Your task to perform on an android device: open the mobile data screen to see how much data has been used Image 0: 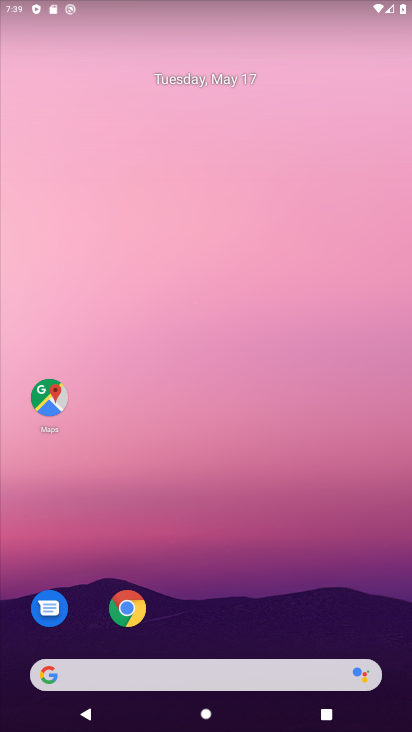
Step 0: drag from (190, 602) to (311, 47)
Your task to perform on an android device: open the mobile data screen to see how much data has been used Image 1: 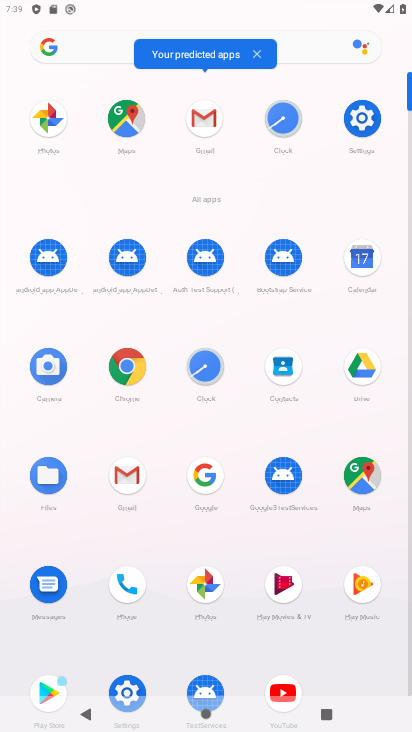
Step 1: click (365, 119)
Your task to perform on an android device: open the mobile data screen to see how much data has been used Image 2: 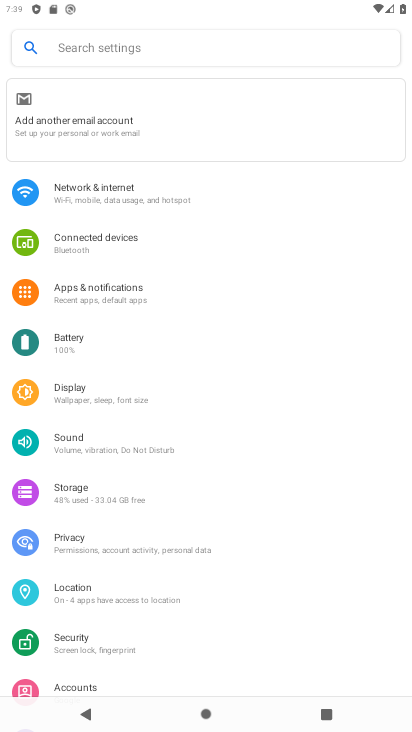
Step 2: click (90, 208)
Your task to perform on an android device: open the mobile data screen to see how much data has been used Image 3: 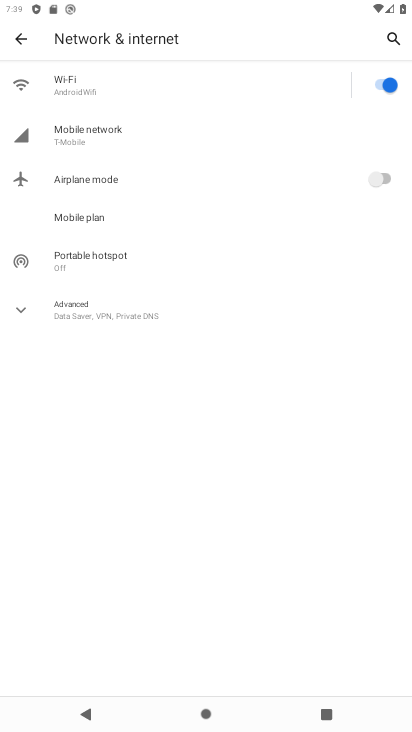
Step 3: click (110, 139)
Your task to perform on an android device: open the mobile data screen to see how much data has been used Image 4: 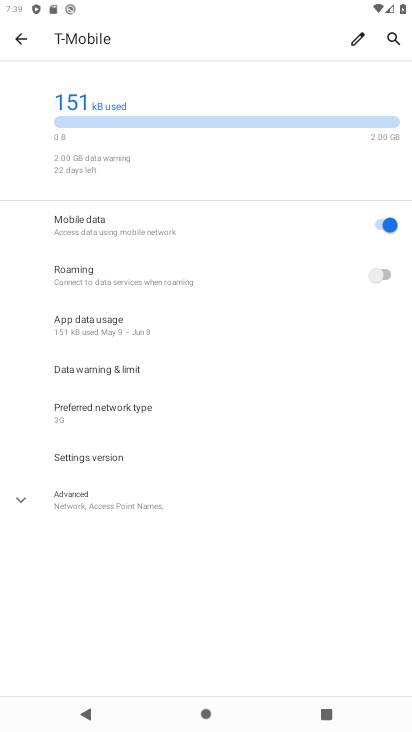
Step 4: click (113, 330)
Your task to perform on an android device: open the mobile data screen to see how much data has been used Image 5: 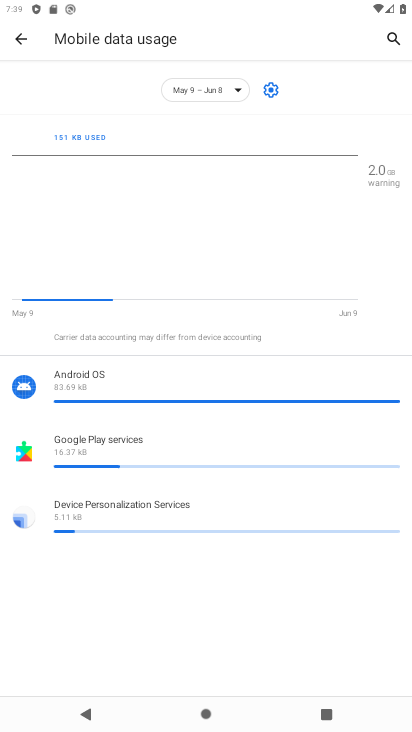
Step 5: task complete